Your task to perform on an android device: manage bookmarks in the chrome app Image 0: 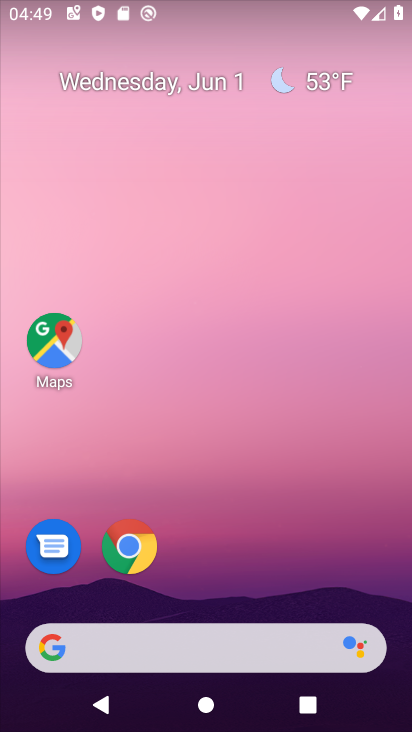
Step 0: click (125, 542)
Your task to perform on an android device: manage bookmarks in the chrome app Image 1: 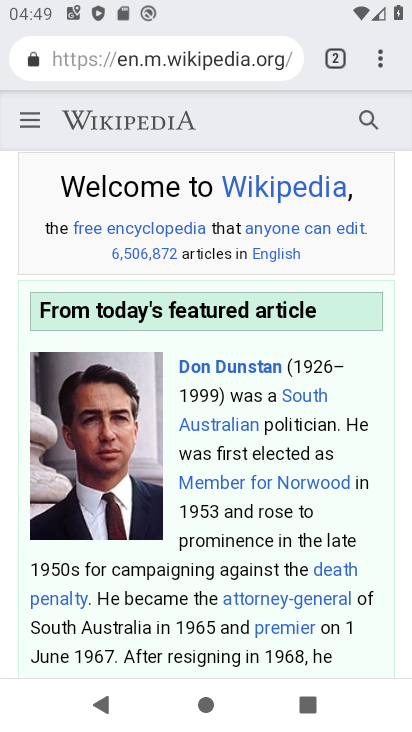
Step 1: click (375, 66)
Your task to perform on an android device: manage bookmarks in the chrome app Image 2: 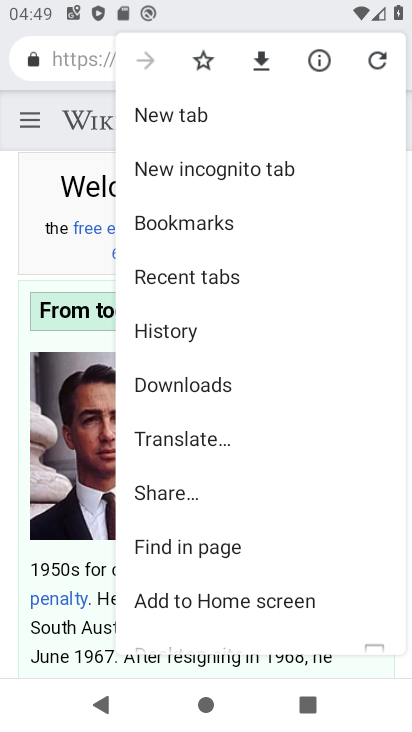
Step 2: click (188, 218)
Your task to perform on an android device: manage bookmarks in the chrome app Image 3: 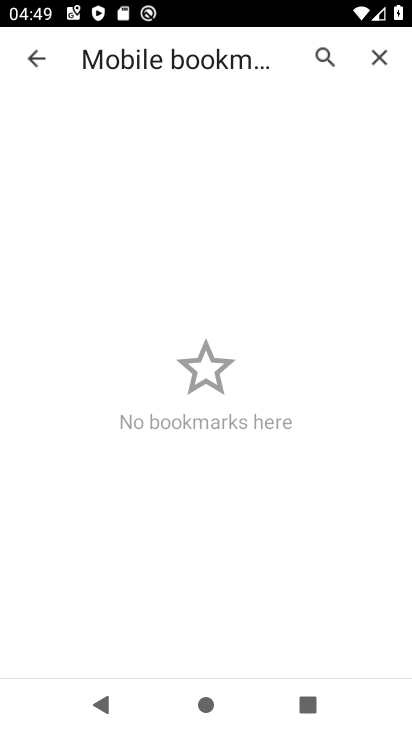
Step 3: task complete